Your task to perform on an android device: delete a single message in the gmail app Image 0: 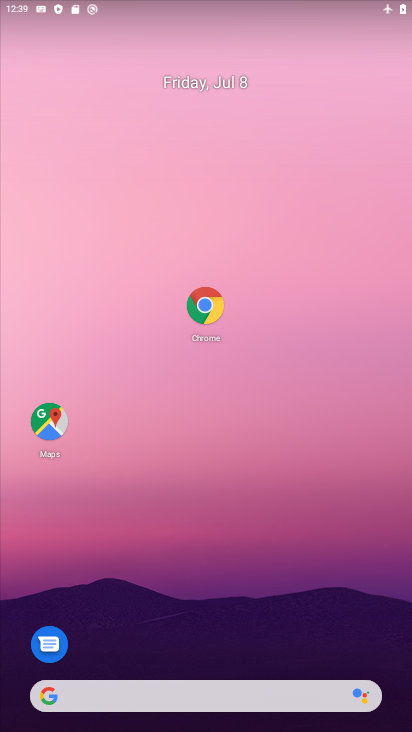
Step 0: drag from (266, 0) to (233, 463)
Your task to perform on an android device: delete a single message in the gmail app Image 1: 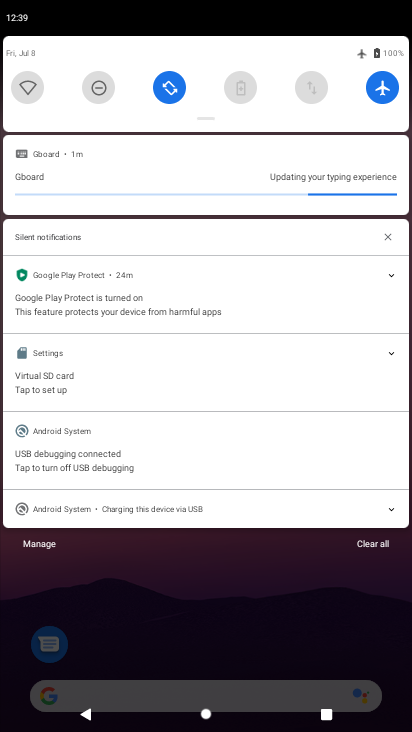
Step 1: click (384, 84)
Your task to perform on an android device: delete a single message in the gmail app Image 2: 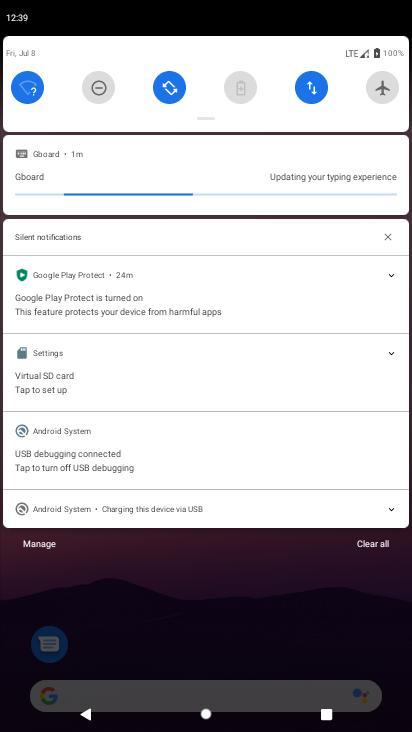
Step 2: drag from (220, 403) to (220, 352)
Your task to perform on an android device: delete a single message in the gmail app Image 3: 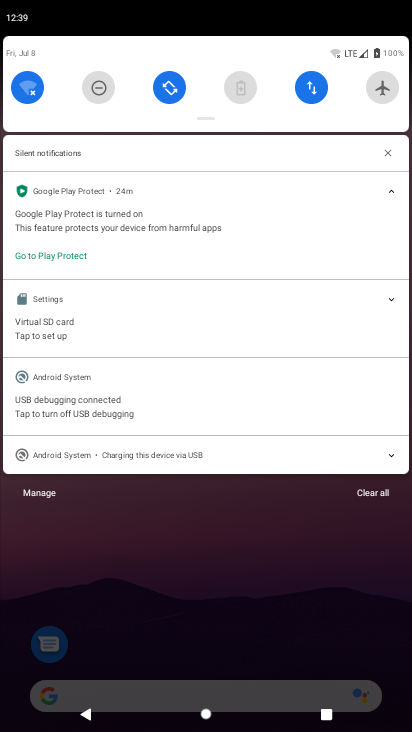
Step 3: click (384, 493)
Your task to perform on an android device: delete a single message in the gmail app Image 4: 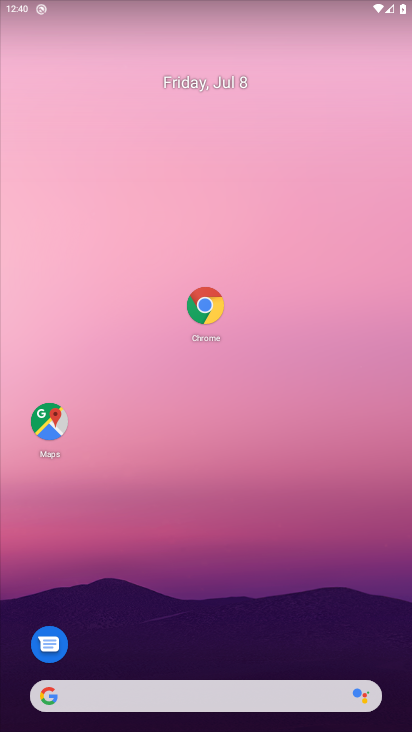
Step 4: drag from (188, 684) to (209, 352)
Your task to perform on an android device: delete a single message in the gmail app Image 5: 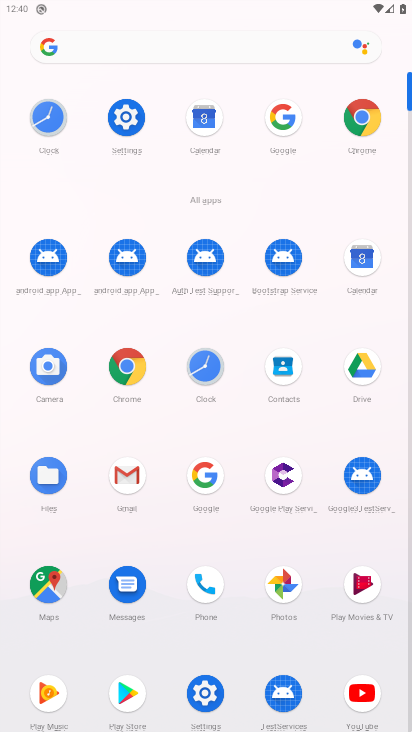
Step 5: click (121, 475)
Your task to perform on an android device: delete a single message in the gmail app Image 6: 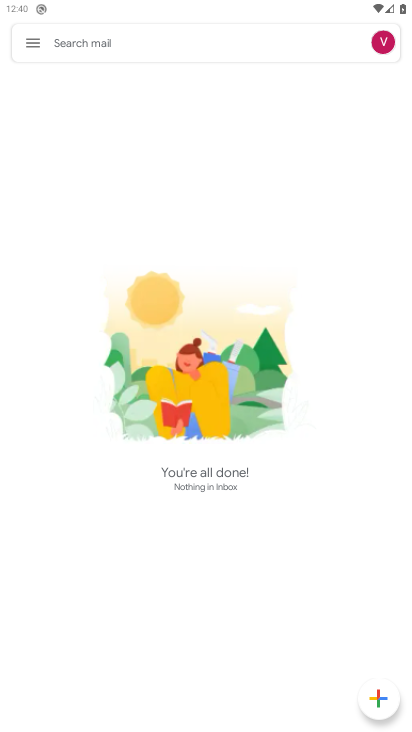
Step 6: task complete